Your task to perform on an android device: Open Chrome and go to the settings page Image 0: 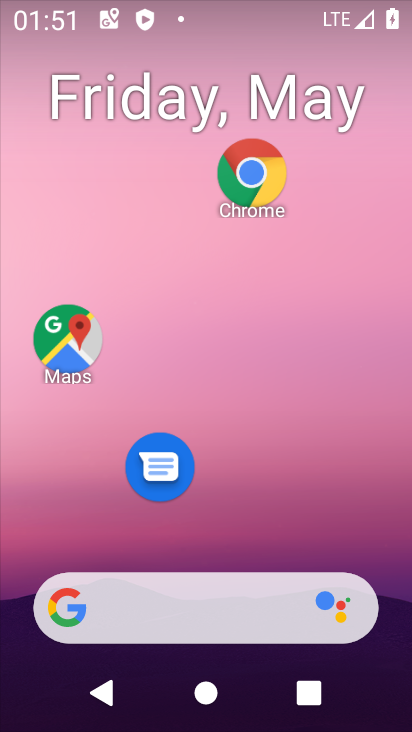
Step 0: drag from (291, 639) to (330, 224)
Your task to perform on an android device: Open Chrome and go to the settings page Image 1: 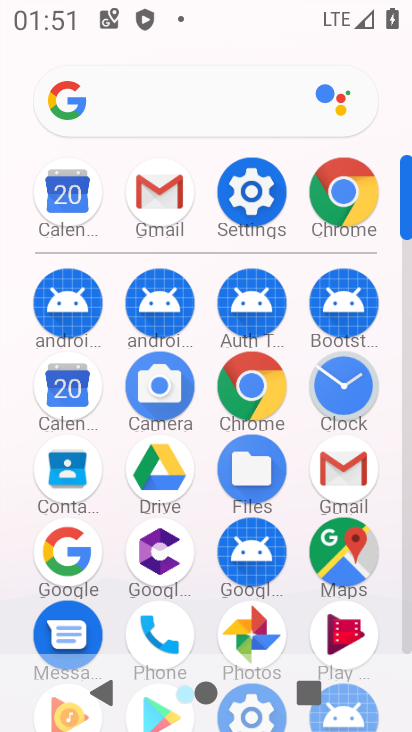
Step 1: click (252, 197)
Your task to perform on an android device: Open Chrome and go to the settings page Image 2: 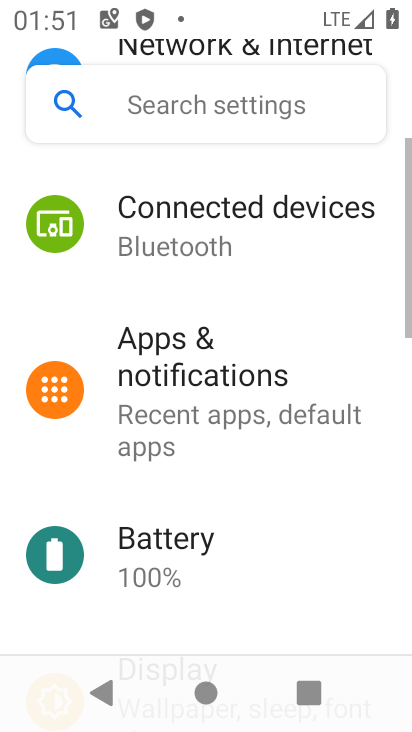
Step 2: press home button
Your task to perform on an android device: Open Chrome and go to the settings page Image 3: 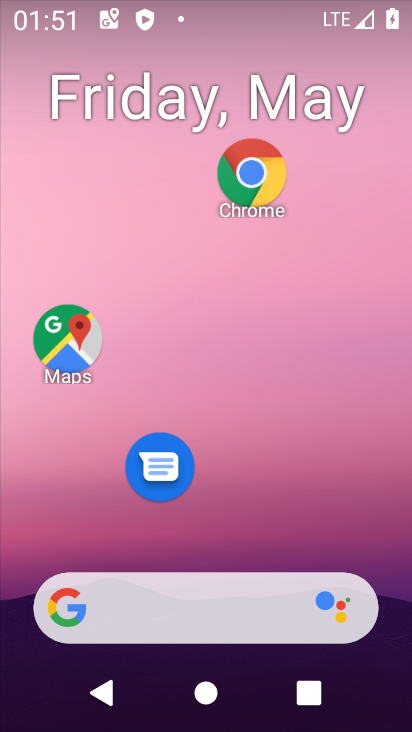
Step 3: drag from (280, 644) to (363, 117)
Your task to perform on an android device: Open Chrome and go to the settings page Image 4: 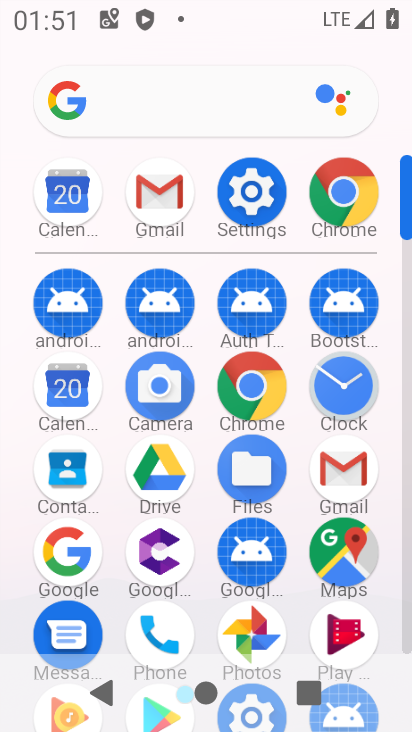
Step 4: click (353, 199)
Your task to perform on an android device: Open Chrome and go to the settings page Image 5: 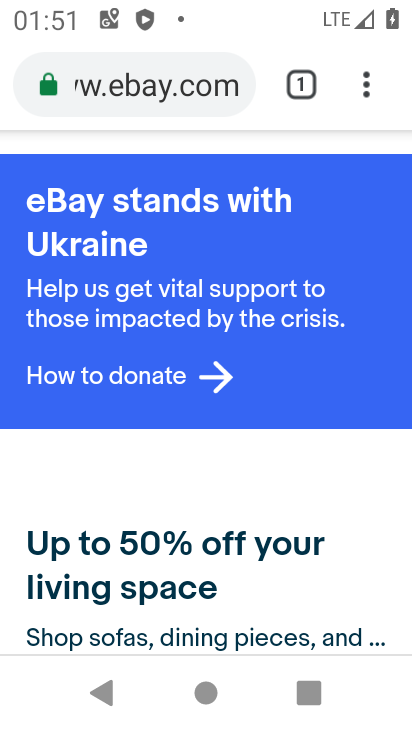
Step 5: click (362, 99)
Your task to perform on an android device: Open Chrome and go to the settings page Image 6: 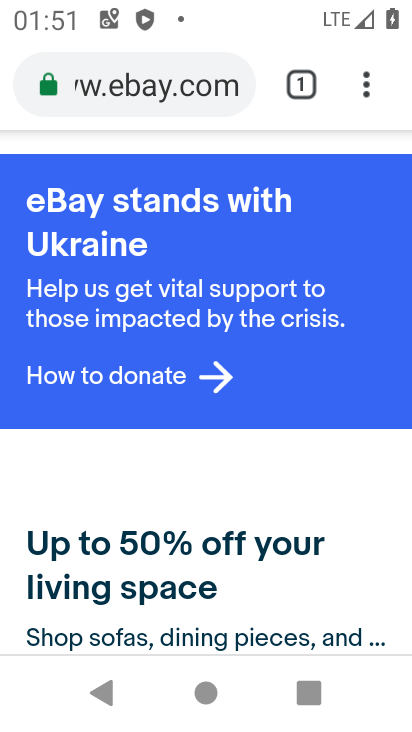
Step 6: click (359, 112)
Your task to perform on an android device: Open Chrome and go to the settings page Image 7: 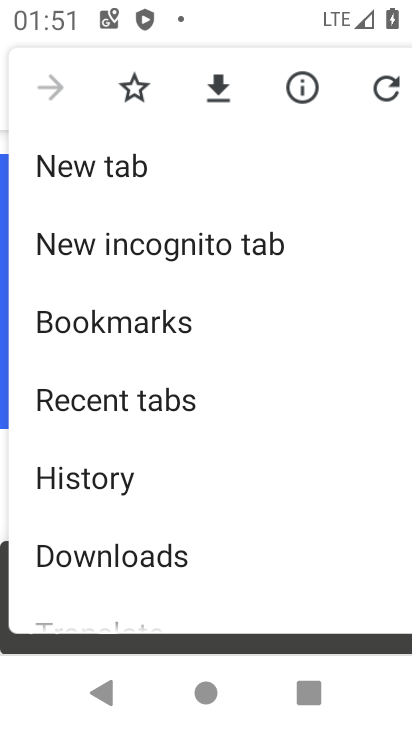
Step 7: drag from (160, 494) to (152, 265)
Your task to perform on an android device: Open Chrome and go to the settings page Image 8: 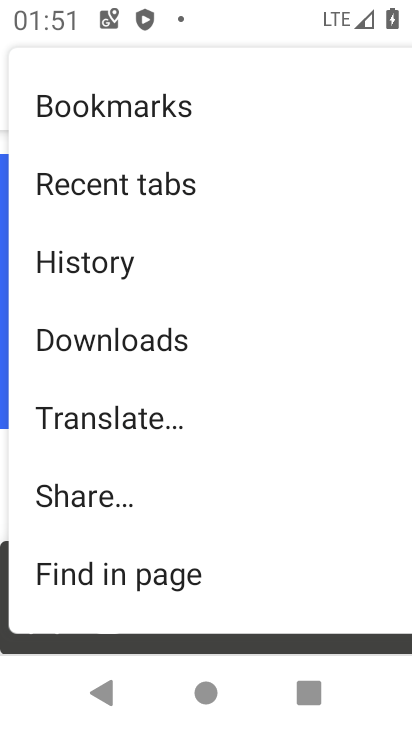
Step 8: drag from (172, 519) to (141, 250)
Your task to perform on an android device: Open Chrome and go to the settings page Image 9: 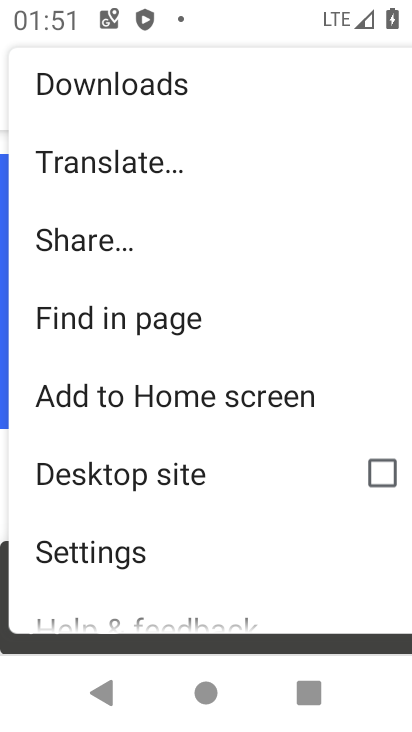
Step 9: click (140, 556)
Your task to perform on an android device: Open Chrome and go to the settings page Image 10: 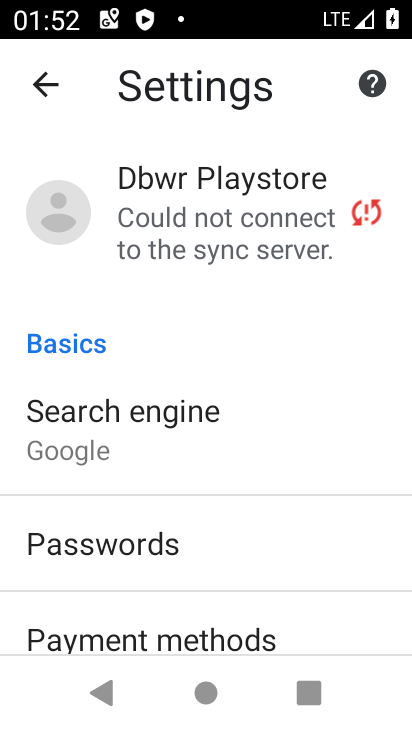
Step 10: task complete